Your task to perform on an android device: toggle notifications settings in the gmail app Image 0: 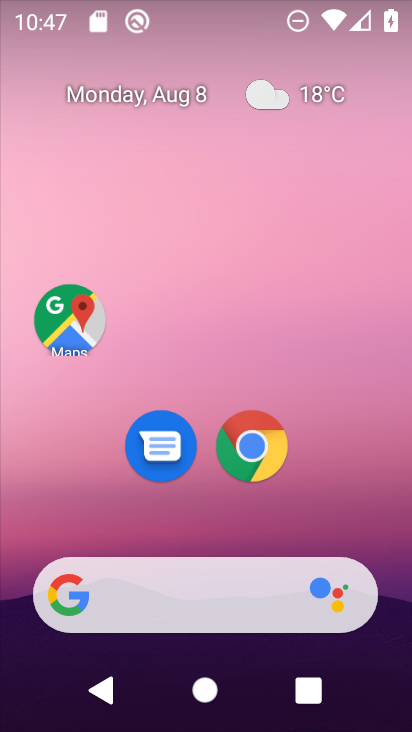
Step 0: drag from (396, 596) to (358, 68)
Your task to perform on an android device: toggle notifications settings in the gmail app Image 1: 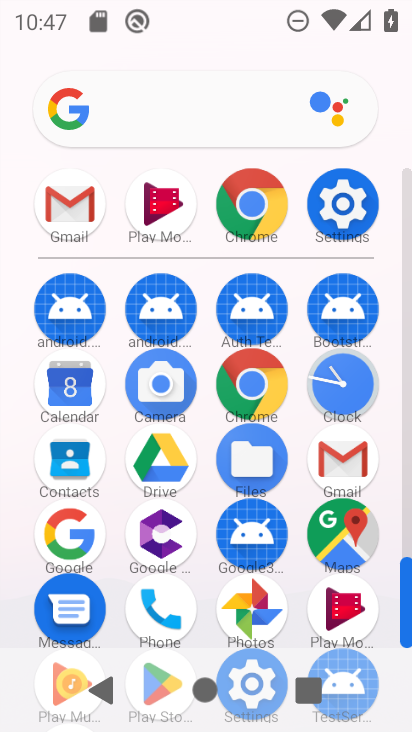
Step 1: click (343, 463)
Your task to perform on an android device: toggle notifications settings in the gmail app Image 2: 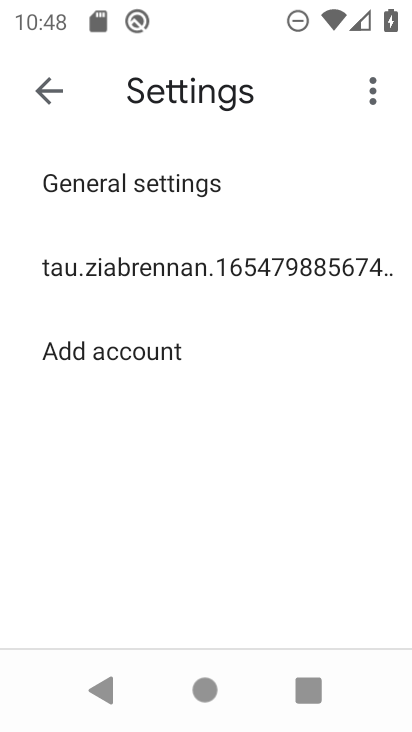
Step 2: click (188, 261)
Your task to perform on an android device: toggle notifications settings in the gmail app Image 3: 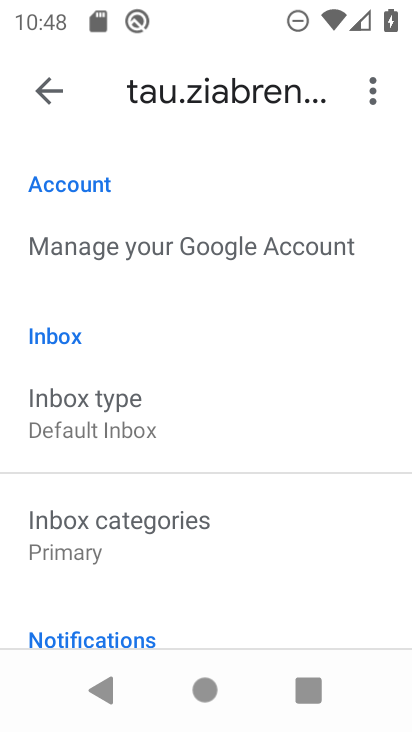
Step 3: drag from (235, 561) to (253, 170)
Your task to perform on an android device: toggle notifications settings in the gmail app Image 4: 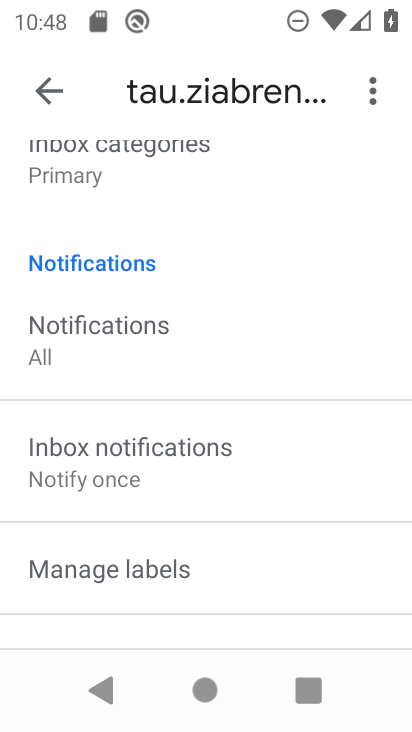
Step 4: drag from (279, 625) to (276, 307)
Your task to perform on an android device: toggle notifications settings in the gmail app Image 5: 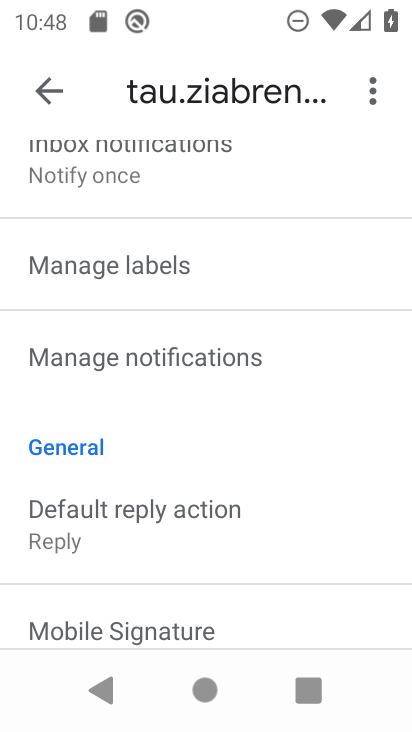
Step 5: click (129, 353)
Your task to perform on an android device: toggle notifications settings in the gmail app Image 6: 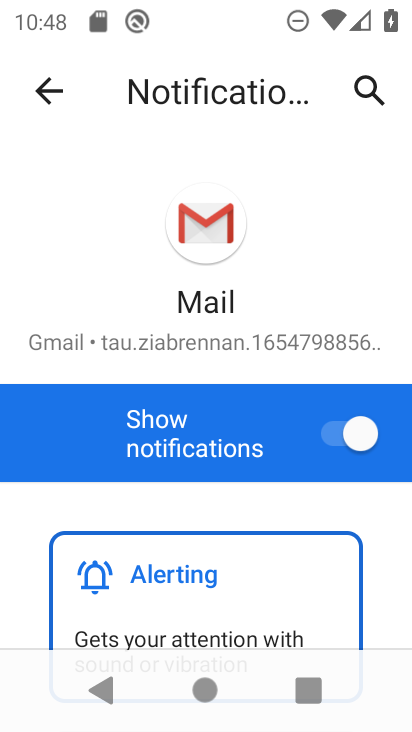
Step 6: click (329, 435)
Your task to perform on an android device: toggle notifications settings in the gmail app Image 7: 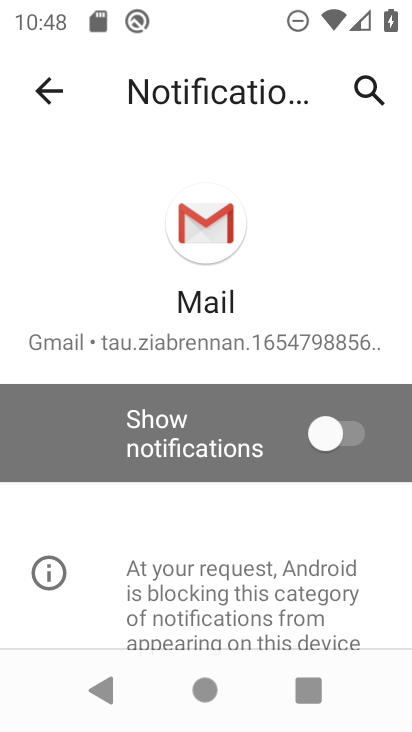
Step 7: task complete